Your task to perform on an android device: turn on bluetooth scan Image 0: 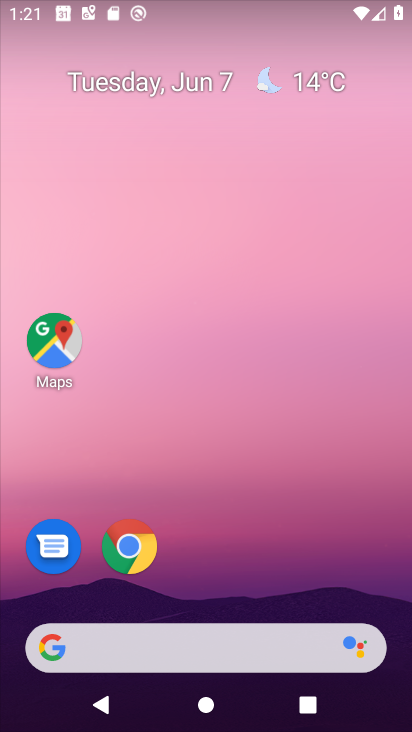
Step 0: press home button
Your task to perform on an android device: turn on bluetooth scan Image 1: 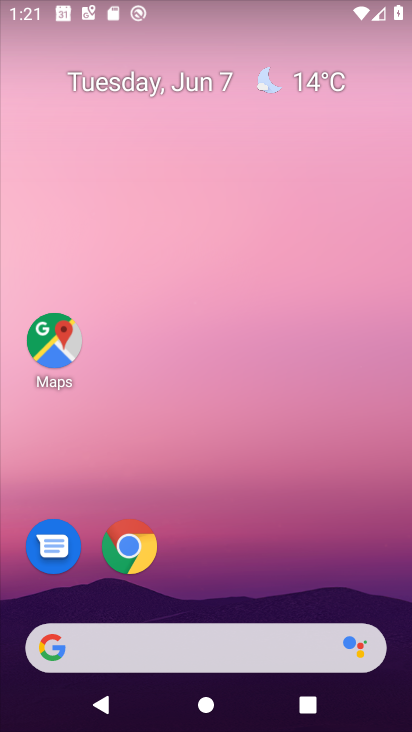
Step 1: drag from (299, 549) to (322, 93)
Your task to perform on an android device: turn on bluetooth scan Image 2: 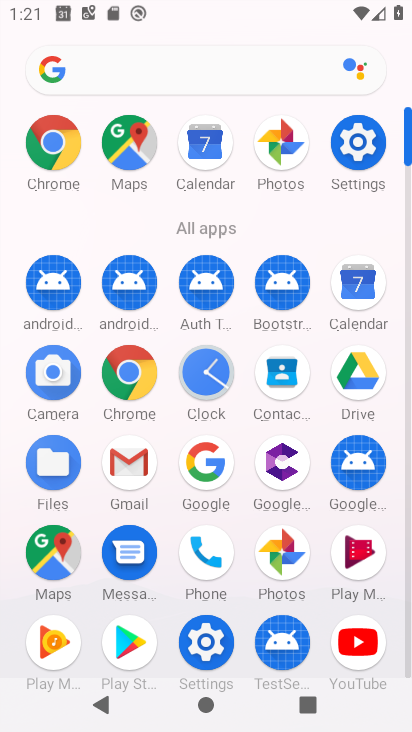
Step 2: click (361, 150)
Your task to perform on an android device: turn on bluetooth scan Image 3: 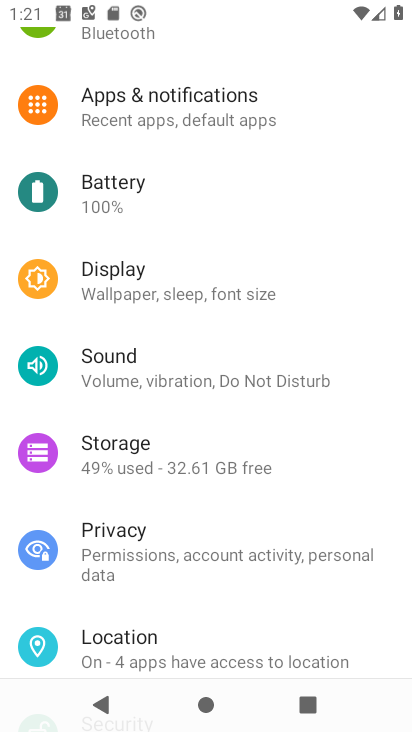
Step 3: click (220, 646)
Your task to perform on an android device: turn on bluetooth scan Image 4: 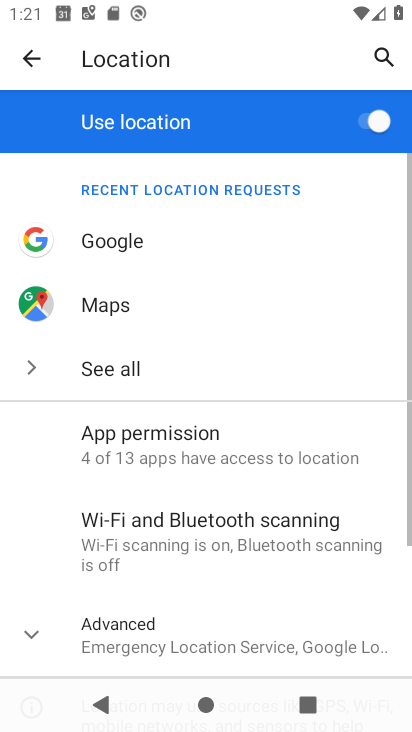
Step 4: click (224, 526)
Your task to perform on an android device: turn on bluetooth scan Image 5: 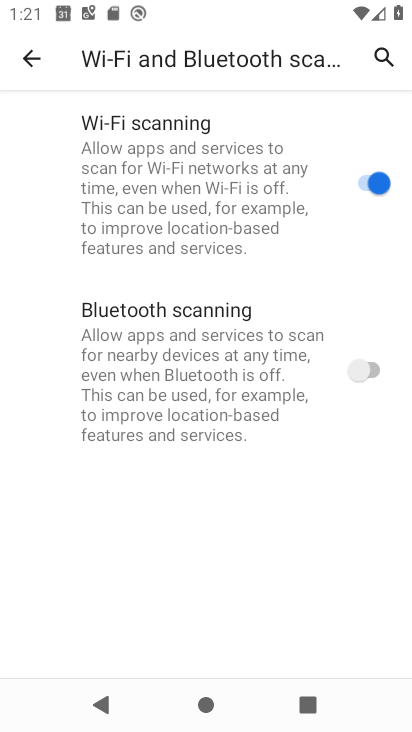
Step 5: click (371, 366)
Your task to perform on an android device: turn on bluetooth scan Image 6: 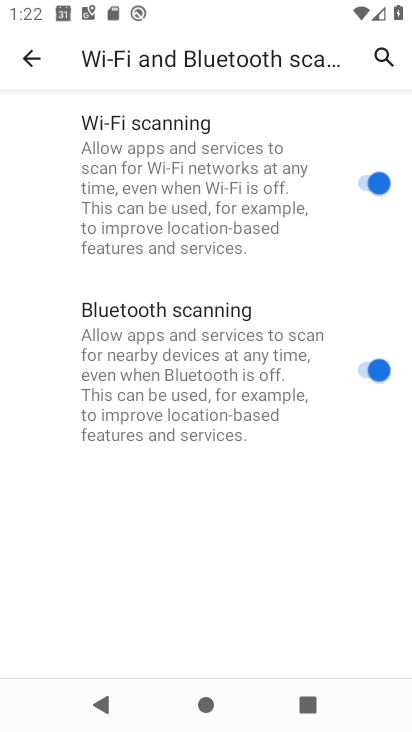
Step 6: task complete